Your task to perform on an android device: check storage Image 0: 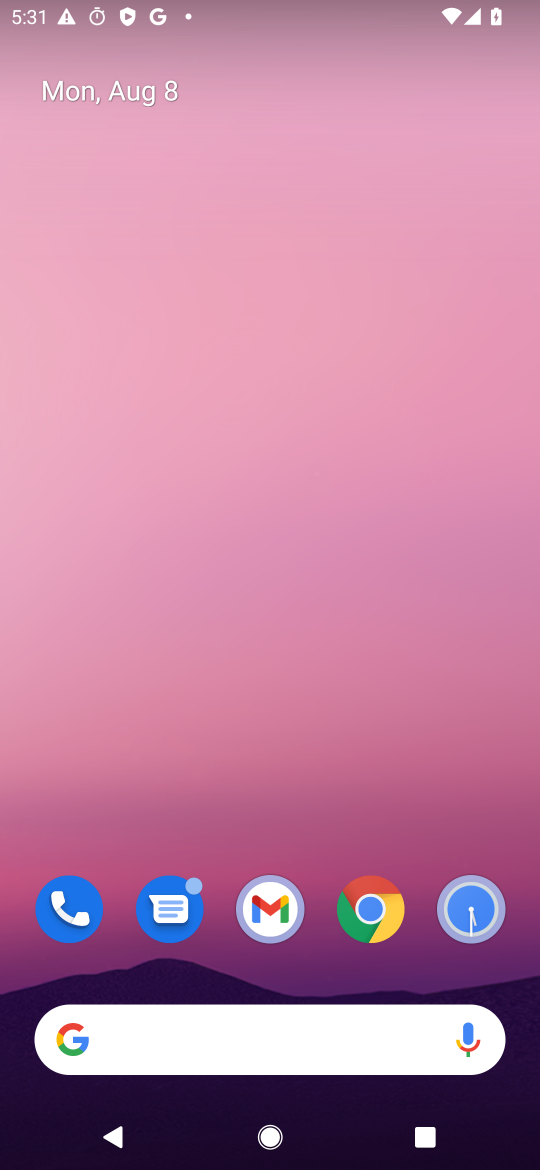
Step 0: drag from (213, 1050) to (514, 0)
Your task to perform on an android device: check storage Image 1: 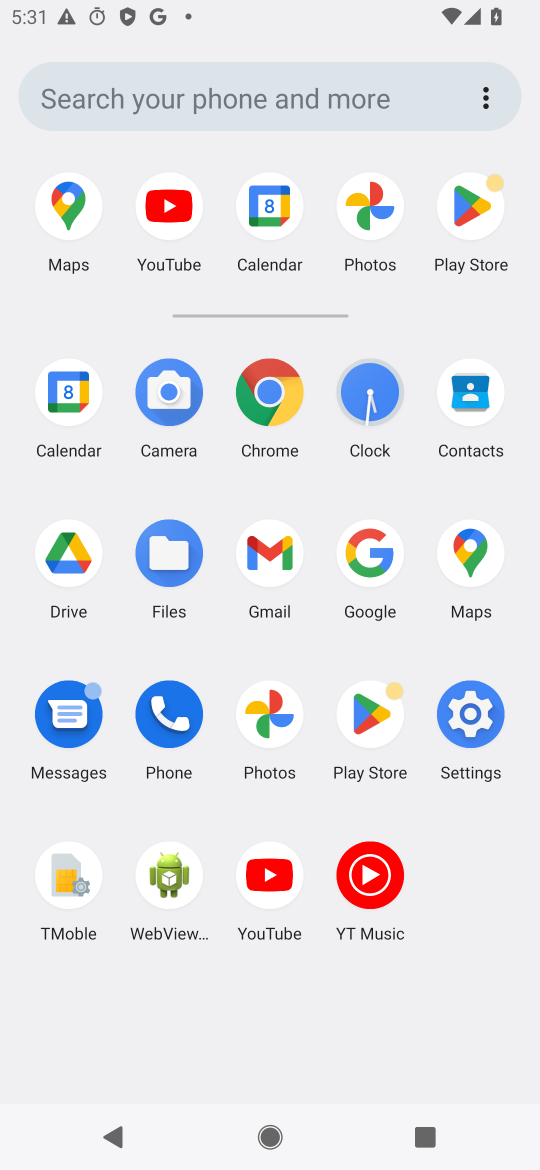
Step 1: click (478, 712)
Your task to perform on an android device: check storage Image 2: 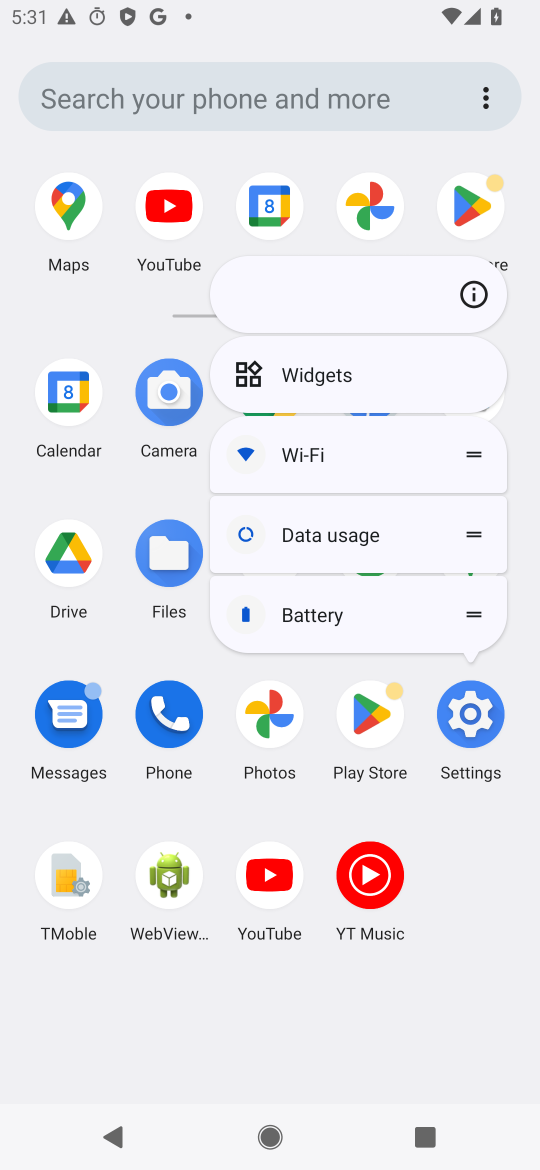
Step 2: click (478, 712)
Your task to perform on an android device: check storage Image 3: 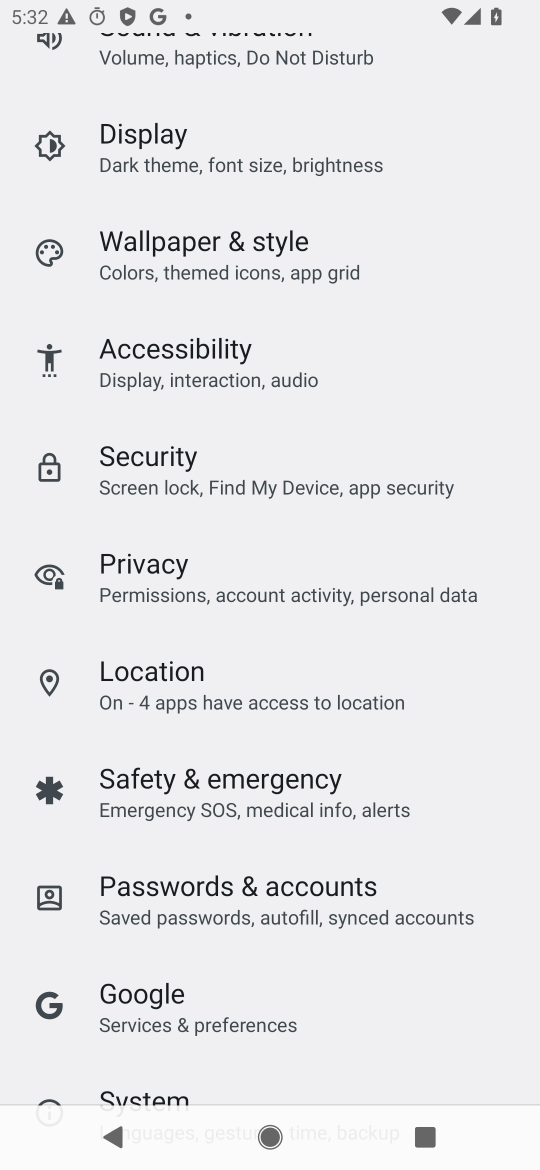
Step 3: drag from (246, 903) to (413, 202)
Your task to perform on an android device: check storage Image 4: 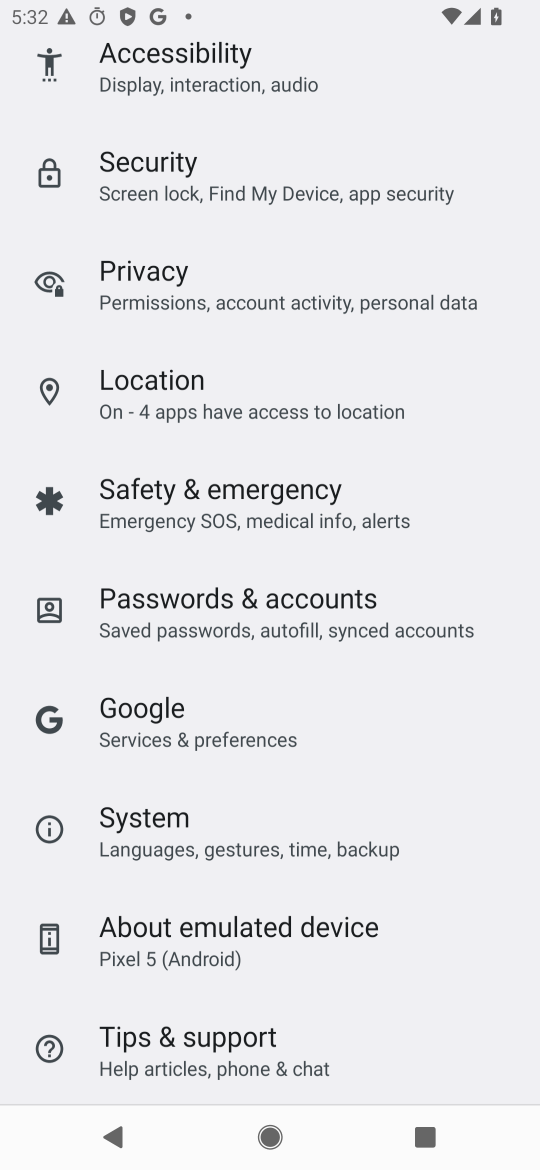
Step 4: drag from (386, 173) to (326, 1037)
Your task to perform on an android device: check storage Image 5: 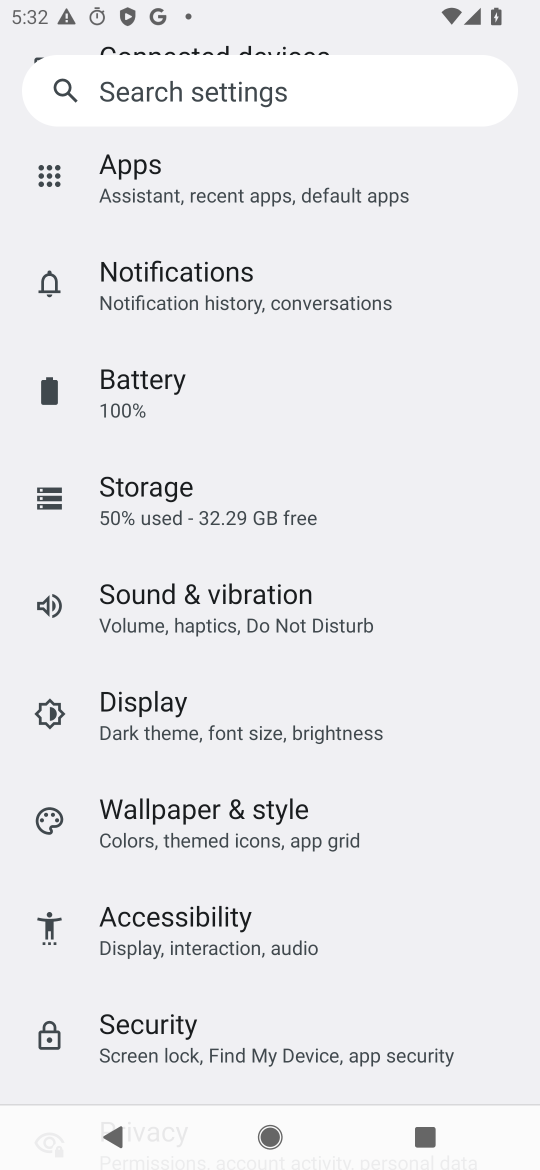
Step 5: click (199, 495)
Your task to perform on an android device: check storage Image 6: 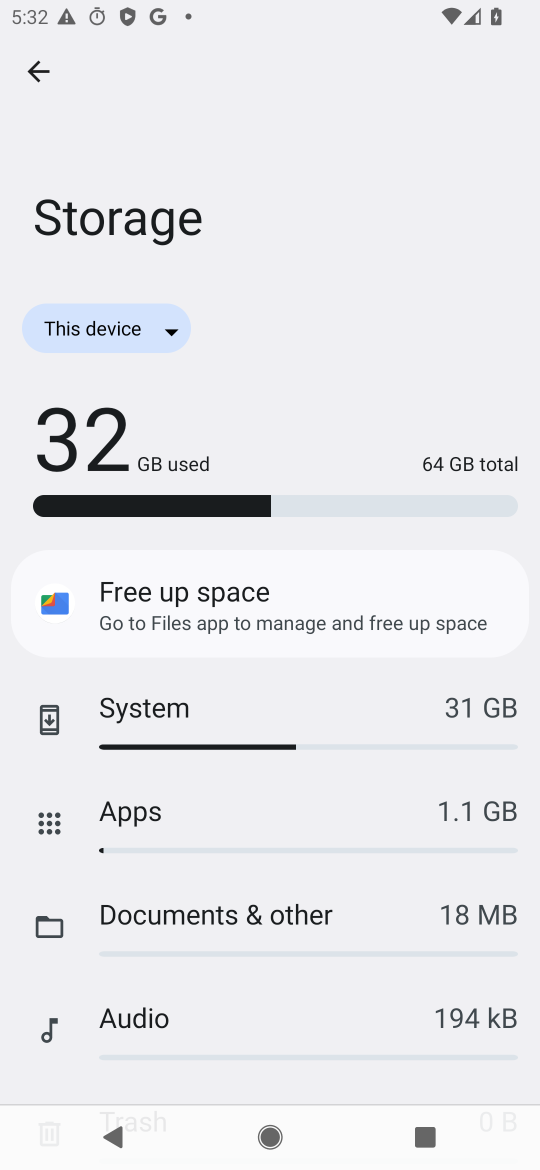
Step 6: task complete